Your task to perform on an android device: Open settings Image 0: 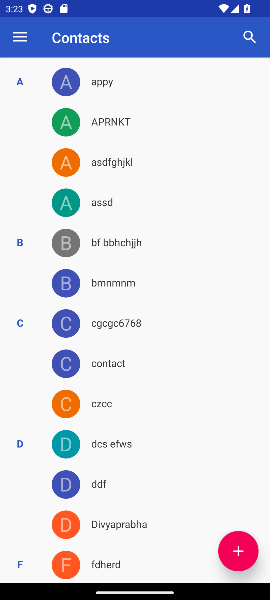
Step 0: press home button
Your task to perform on an android device: Open settings Image 1: 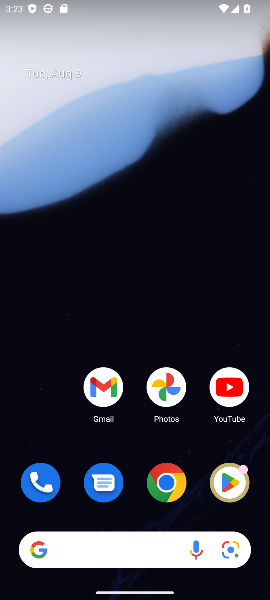
Step 1: drag from (140, 243) to (146, 152)
Your task to perform on an android device: Open settings Image 2: 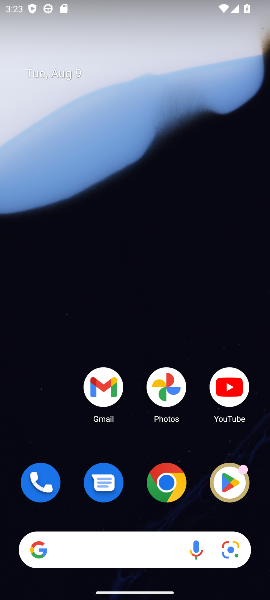
Step 2: drag from (134, 460) to (121, 166)
Your task to perform on an android device: Open settings Image 3: 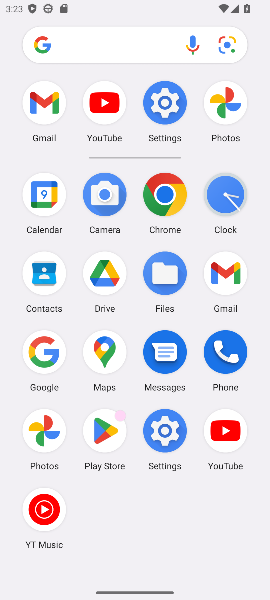
Step 3: click (170, 109)
Your task to perform on an android device: Open settings Image 4: 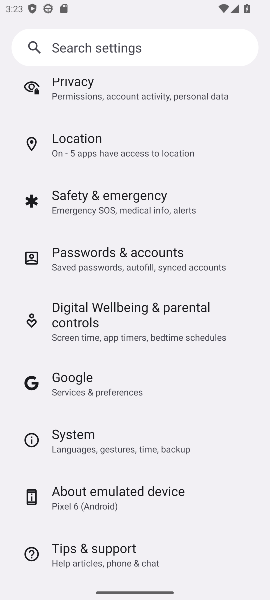
Step 4: task complete